Your task to perform on an android device: delete location history Image 0: 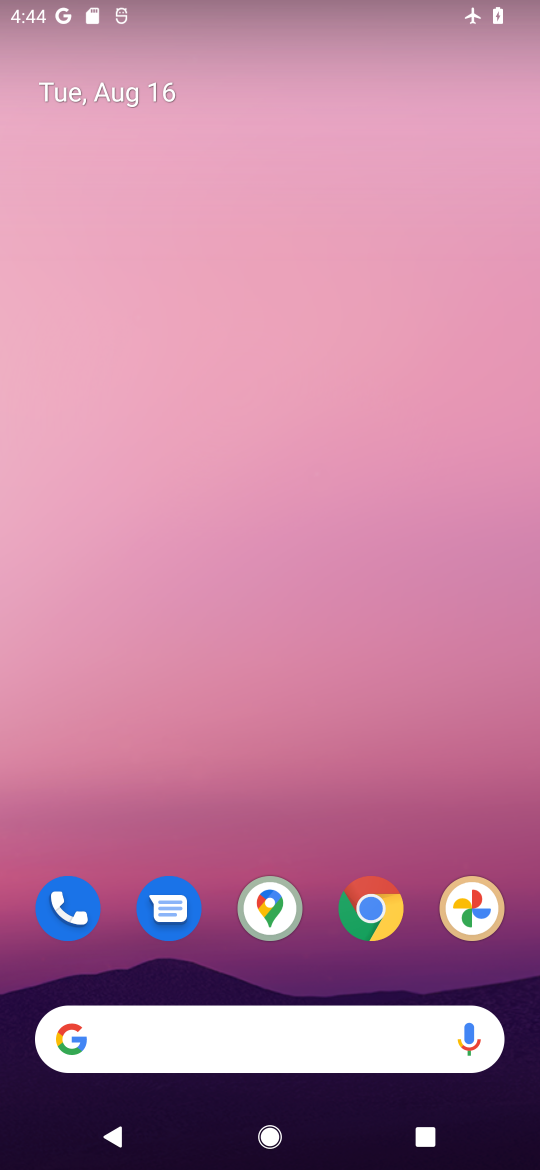
Step 0: click (274, 922)
Your task to perform on an android device: delete location history Image 1: 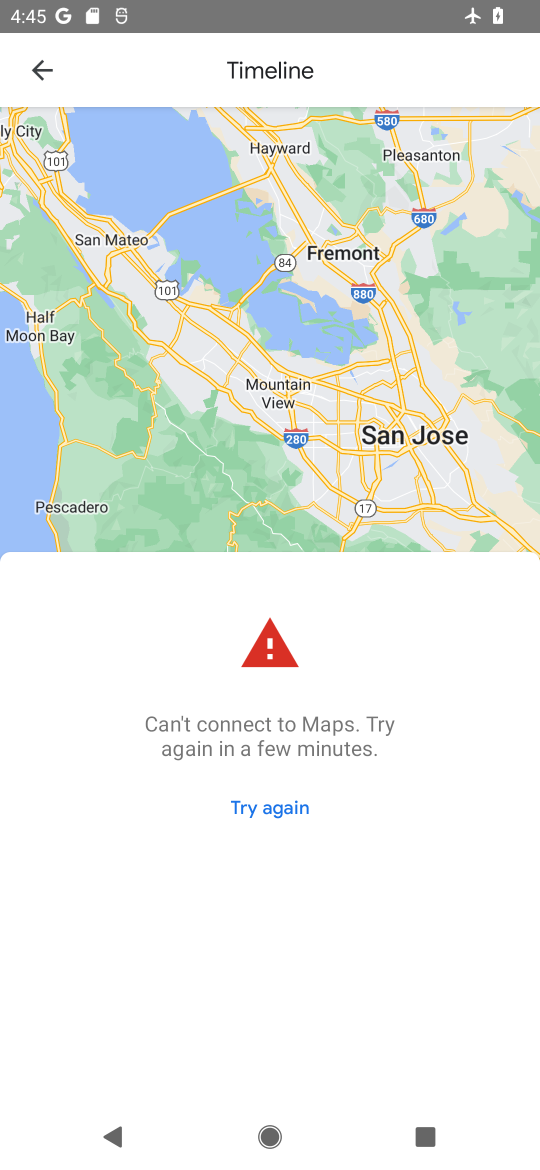
Step 1: press back button
Your task to perform on an android device: delete location history Image 2: 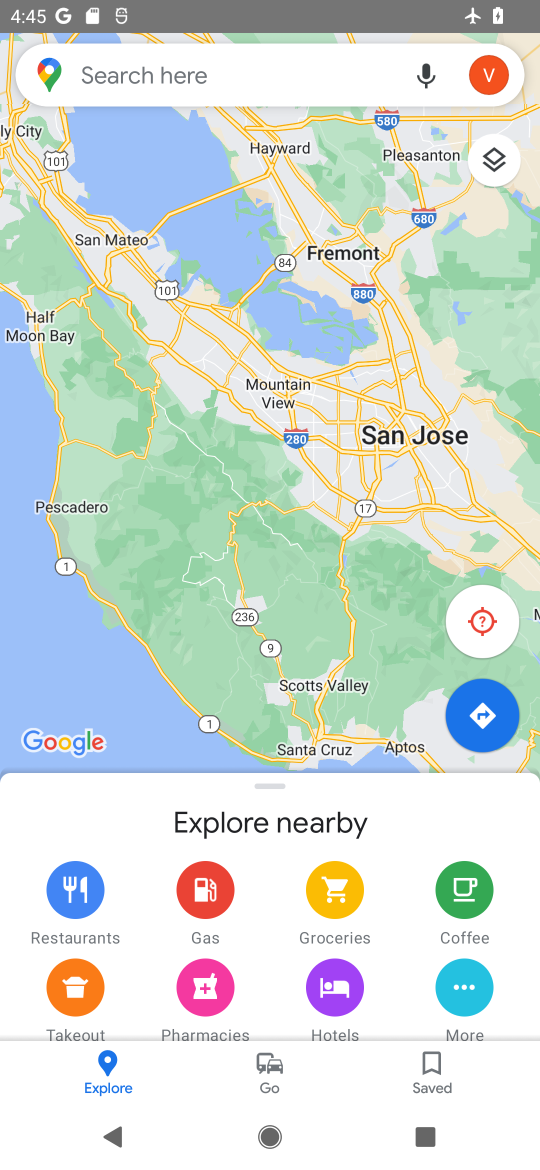
Step 2: click (496, 77)
Your task to perform on an android device: delete location history Image 3: 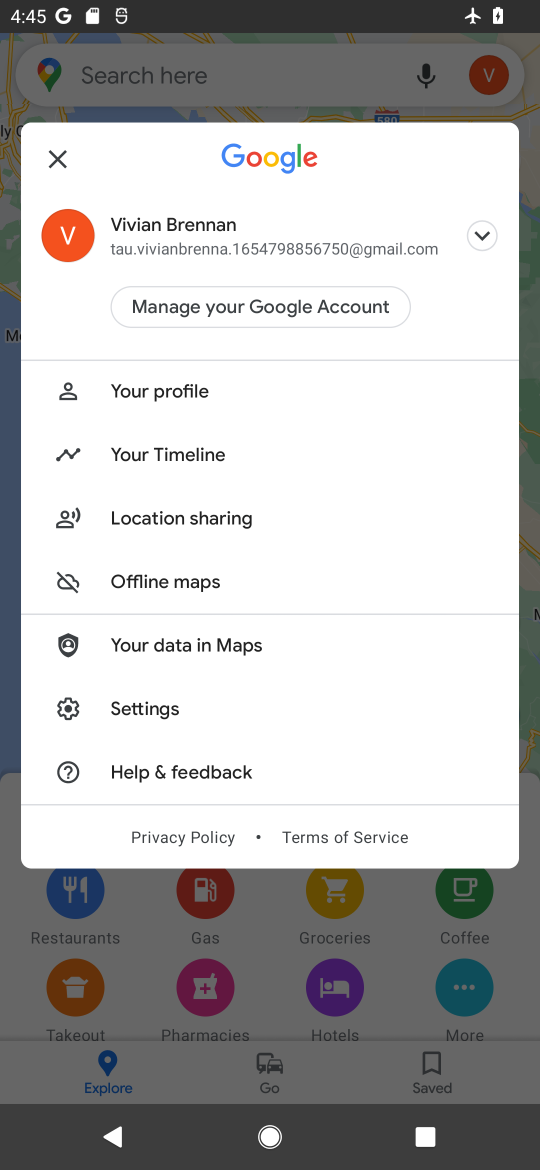
Step 3: click (183, 441)
Your task to perform on an android device: delete location history Image 4: 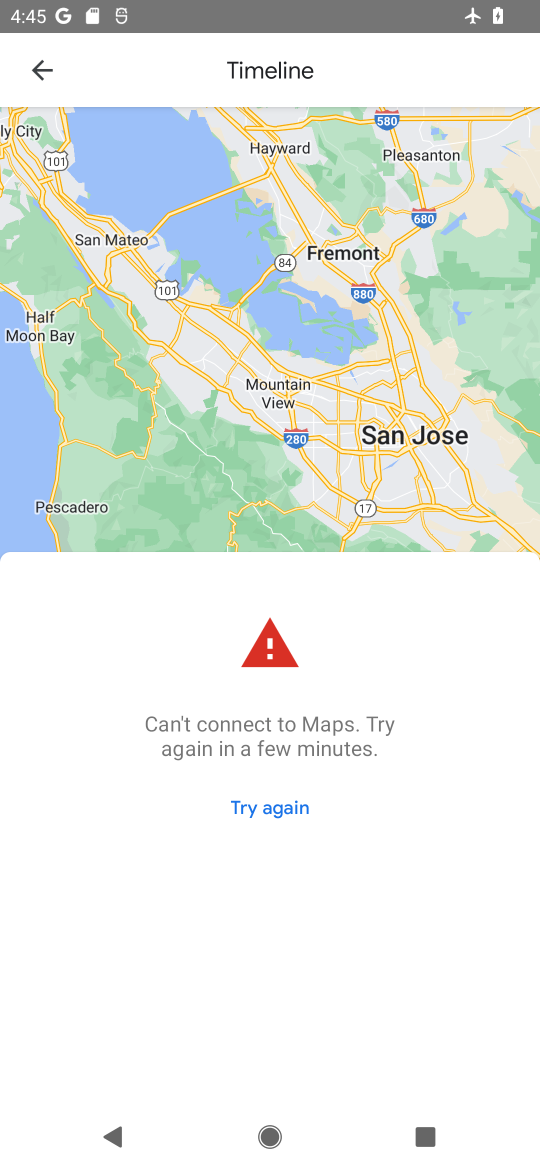
Step 4: drag from (495, 6) to (437, 743)
Your task to perform on an android device: delete location history Image 5: 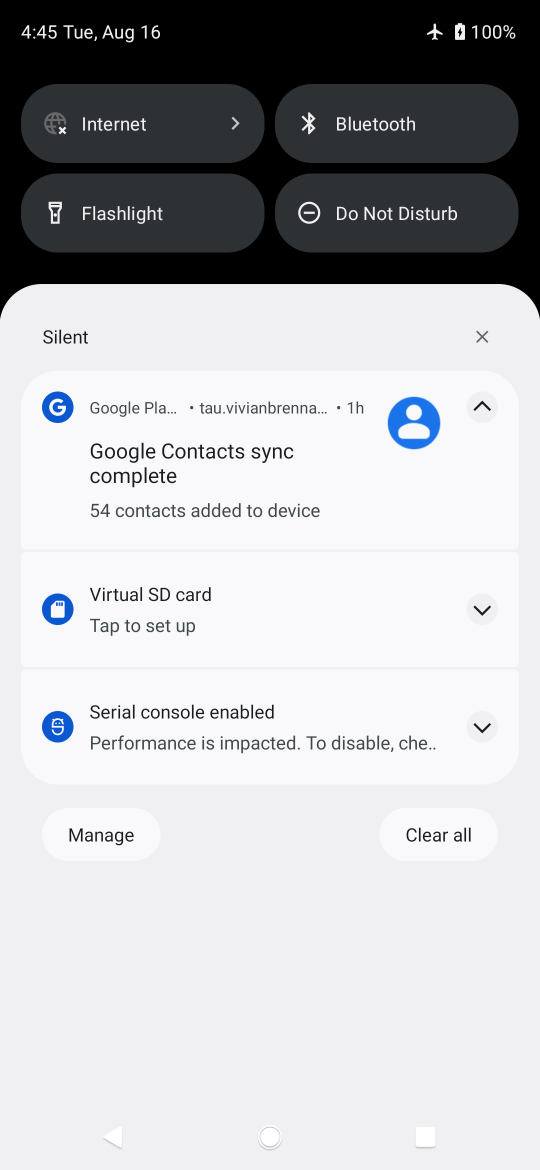
Step 5: drag from (383, 272) to (387, 1079)
Your task to perform on an android device: delete location history Image 6: 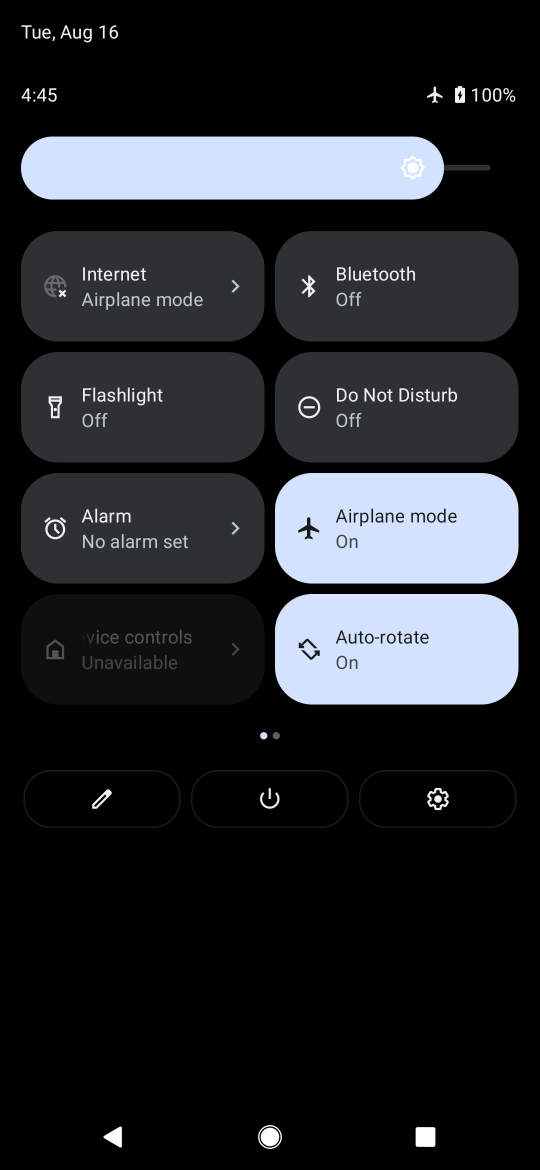
Step 6: click (366, 537)
Your task to perform on an android device: delete location history Image 7: 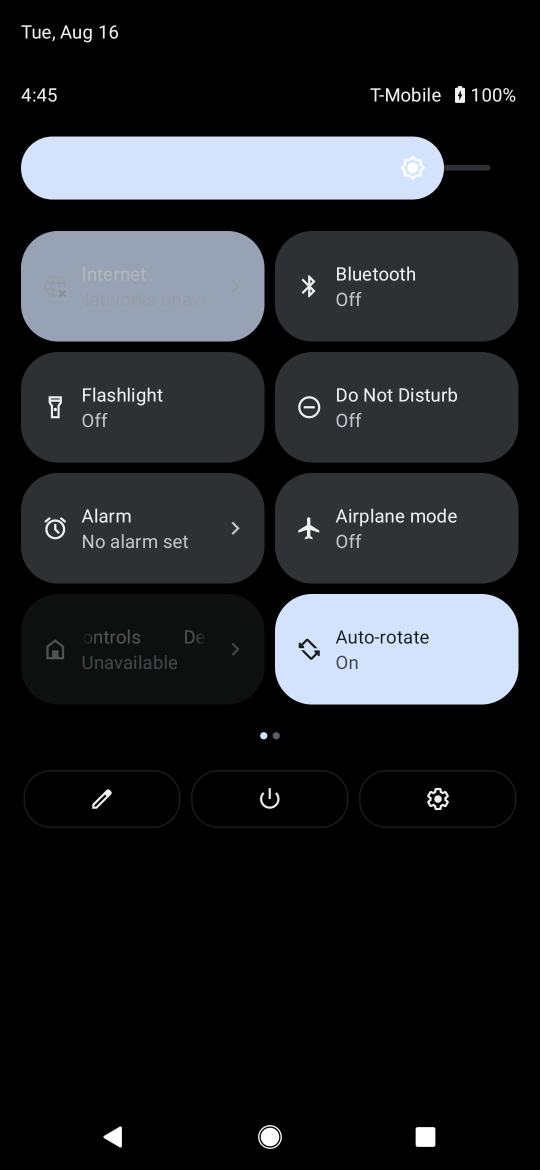
Step 7: drag from (305, 1057) to (418, 217)
Your task to perform on an android device: delete location history Image 8: 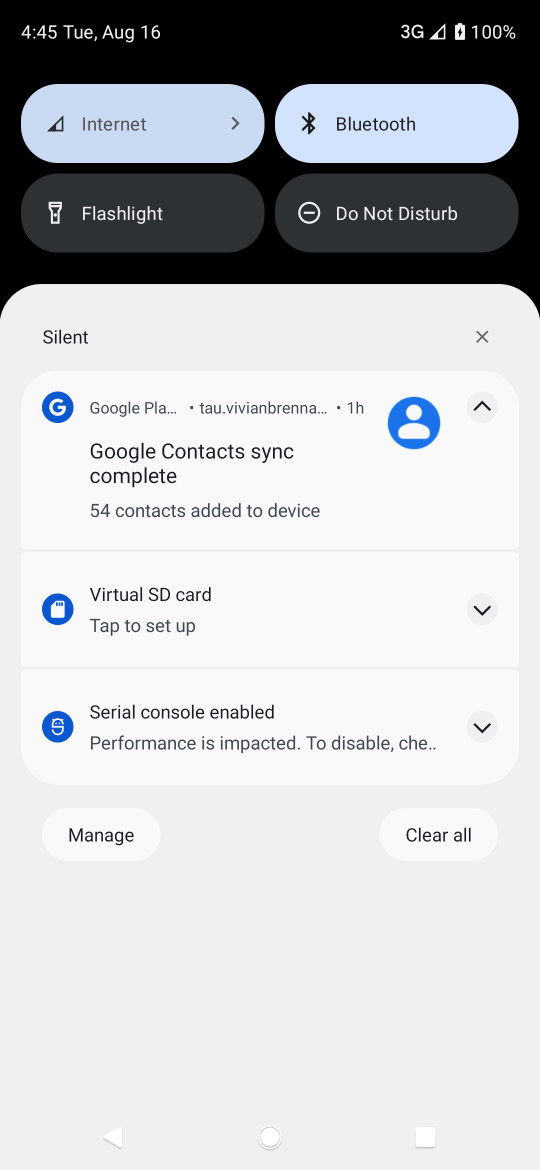
Step 8: drag from (246, 1000) to (324, 177)
Your task to perform on an android device: delete location history Image 9: 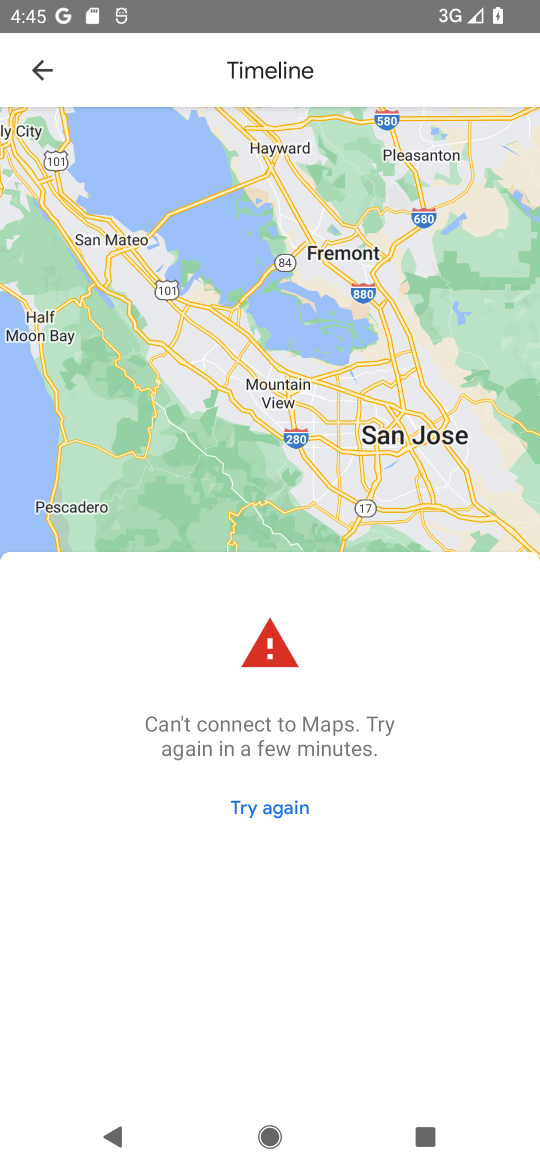
Step 9: click (265, 812)
Your task to perform on an android device: delete location history Image 10: 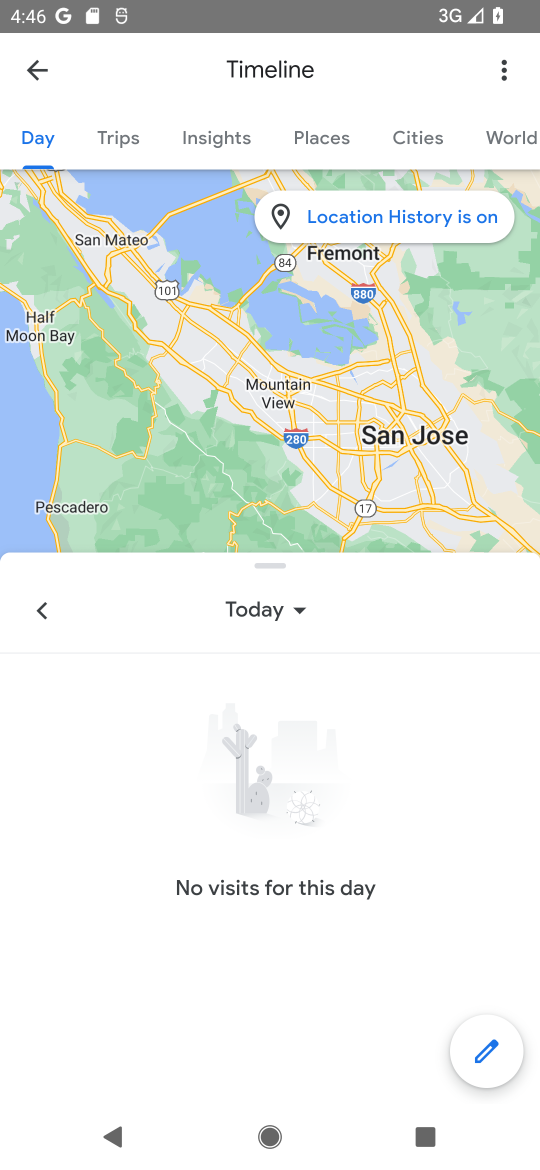
Step 10: click (507, 69)
Your task to perform on an android device: delete location history Image 11: 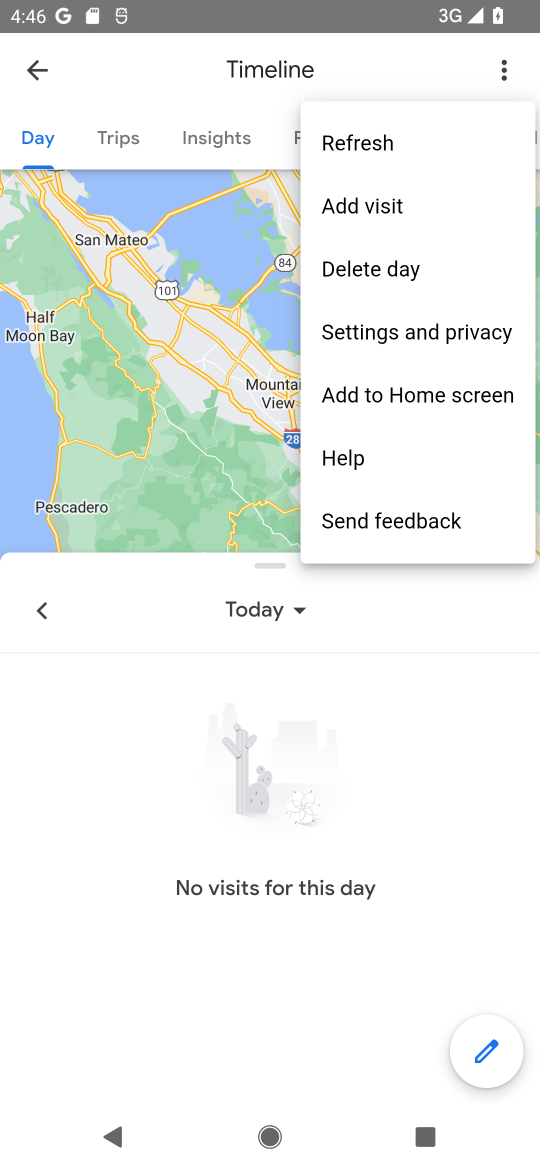
Step 11: click (403, 333)
Your task to perform on an android device: delete location history Image 12: 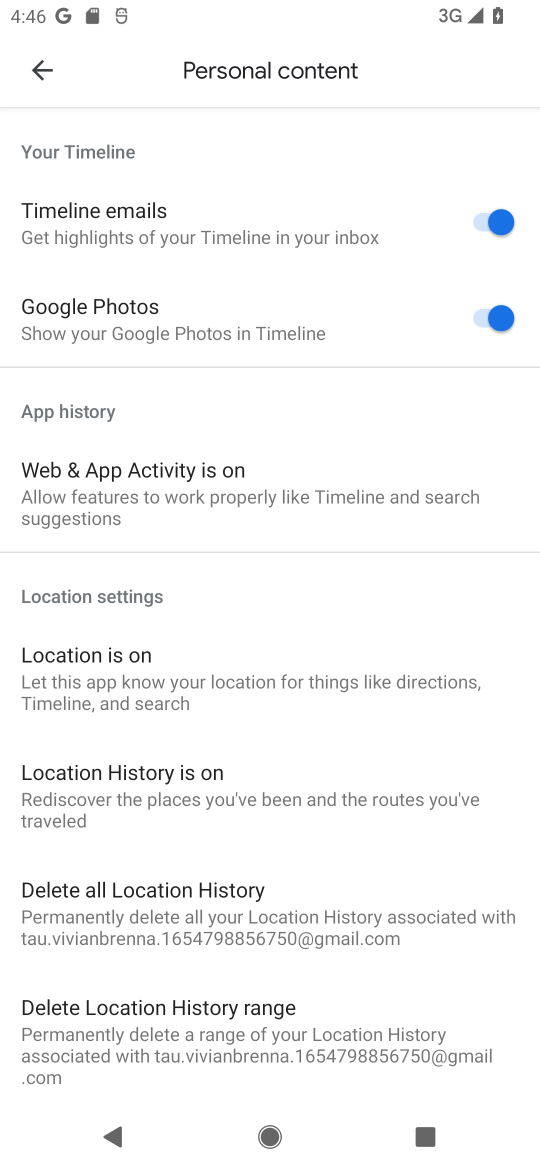
Step 12: click (225, 893)
Your task to perform on an android device: delete location history Image 13: 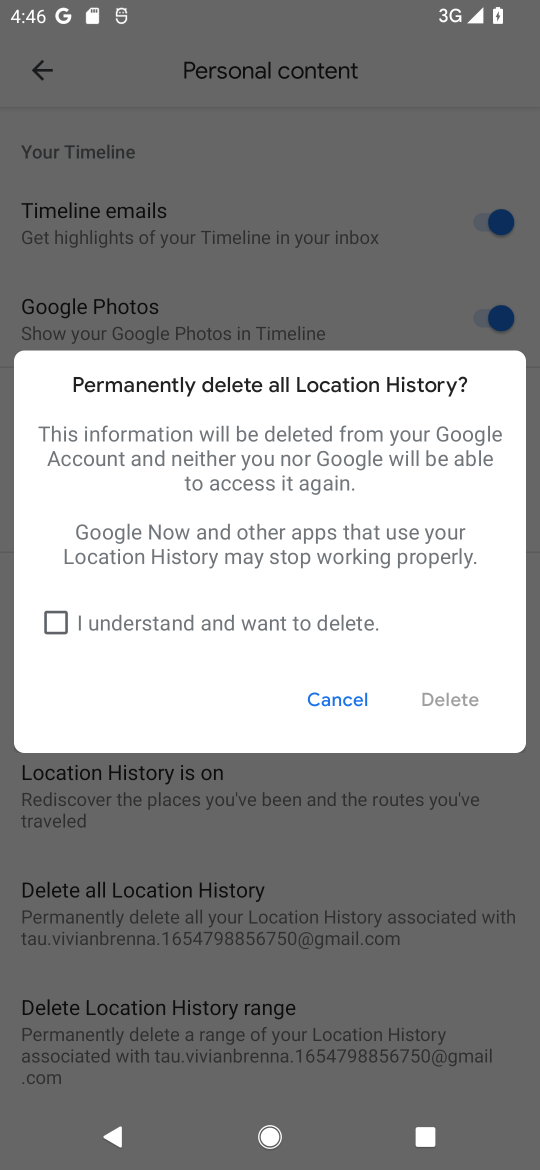
Step 13: click (51, 613)
Your task to perform on an android device: delete location history Image 14: 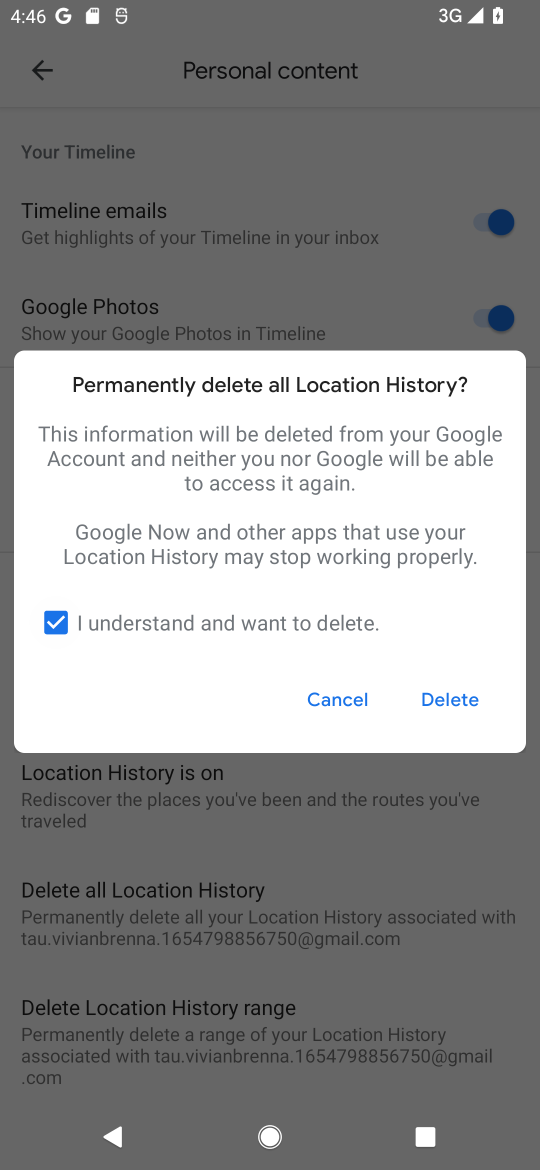
Step 14: click (445, 699)
Your task to perform on an android device: delete location history Image 15: 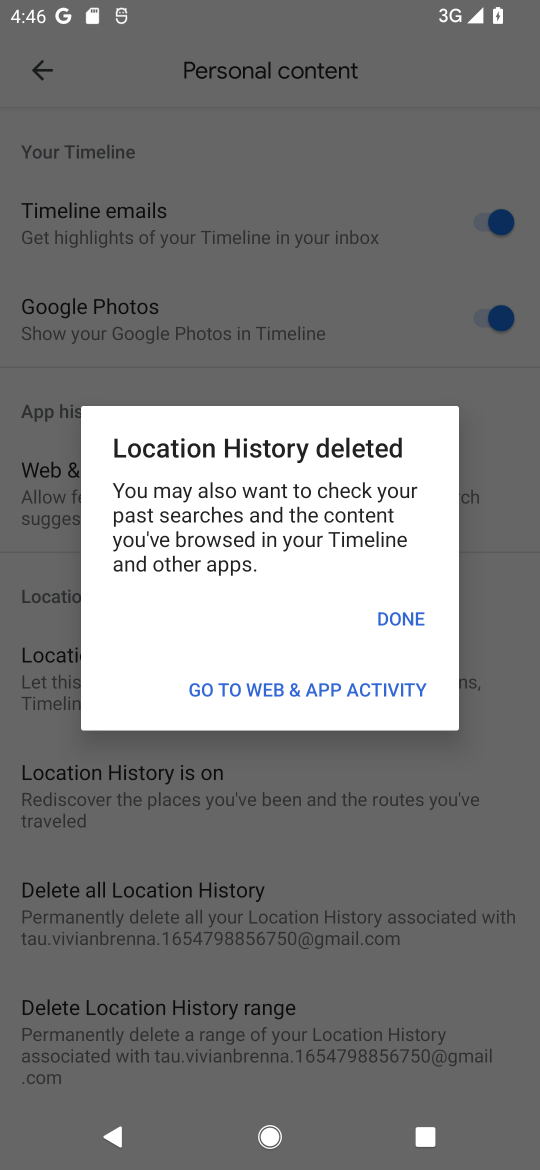
Step 15: click (401, 610)
Your task to perform on an android device: delete location history Image 16: 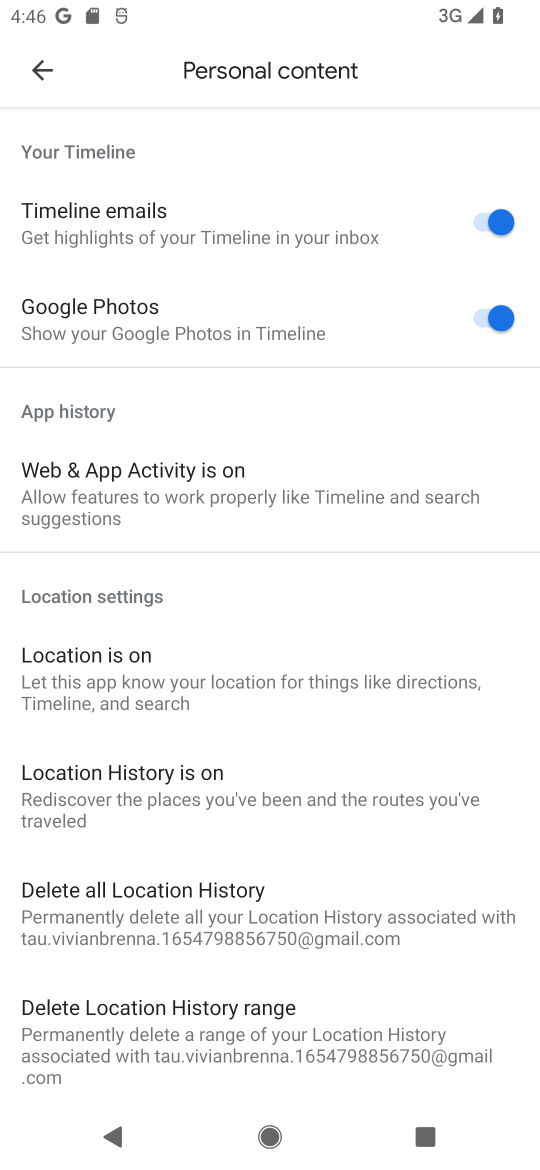
Step 16: task complete